Your task to perform on an android device: change text size in settings app Image 0: 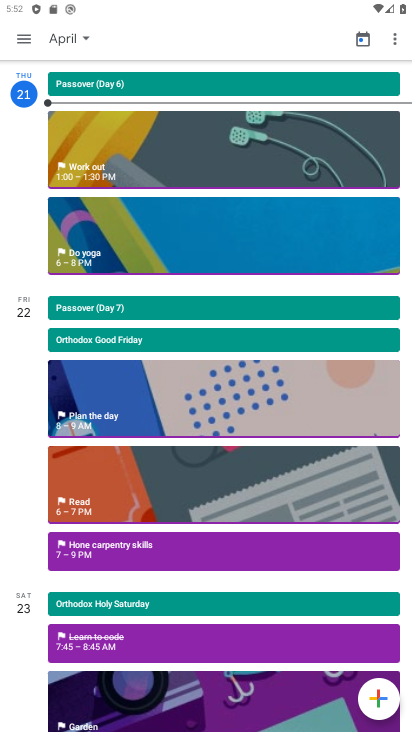
Step 0: press home button
Your task to perform on an android device: change text size in settings app Image 1: 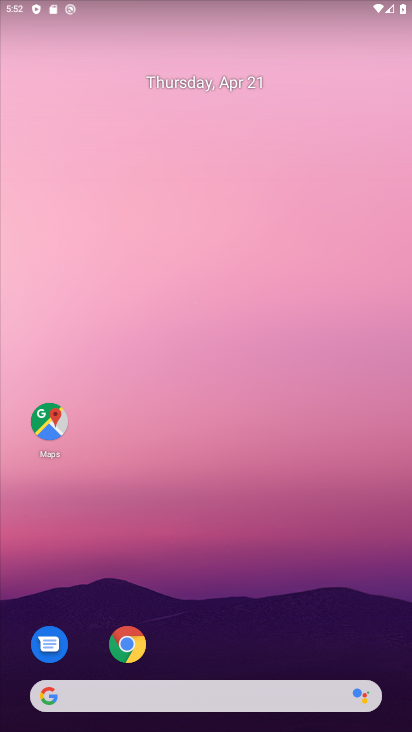
Step 1: drag from (217, 532) to (168, 2)
Your task to perform on an android device: change text size in settings app Image 2: 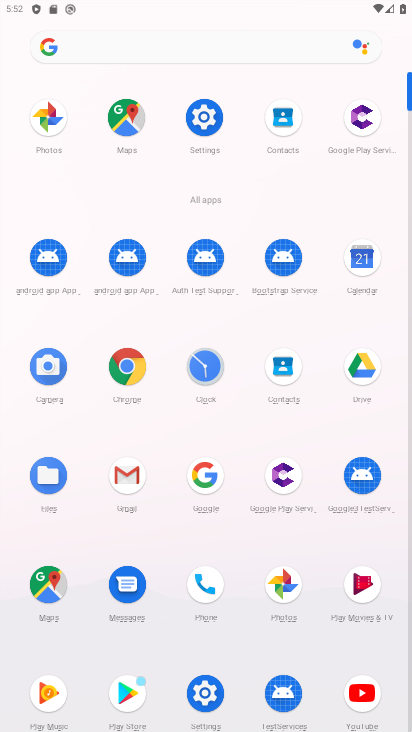
Step 2: click (206, 114)
Your task to perform on an android device: change text size in settings app Image 3: 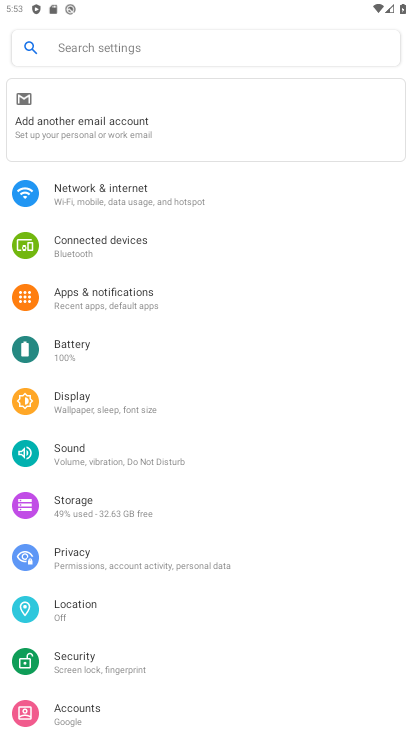
Step 3: click (114, 399)
Your task to perform on an android device: change text size in settings app Image 4: 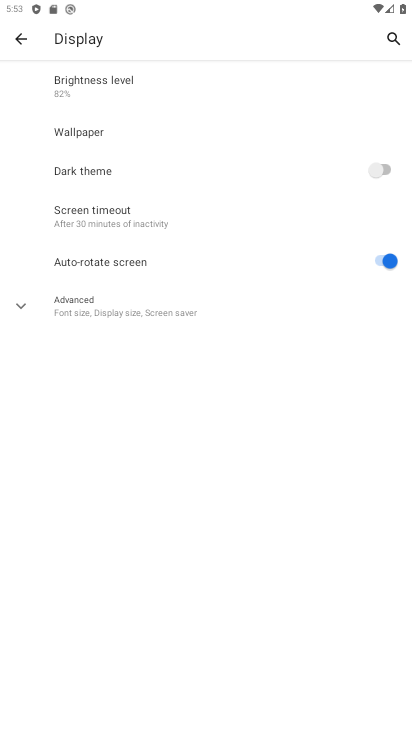
Step 4: click (130, 314)
Your task to perform on an android device: change text size in settings app Image 5: 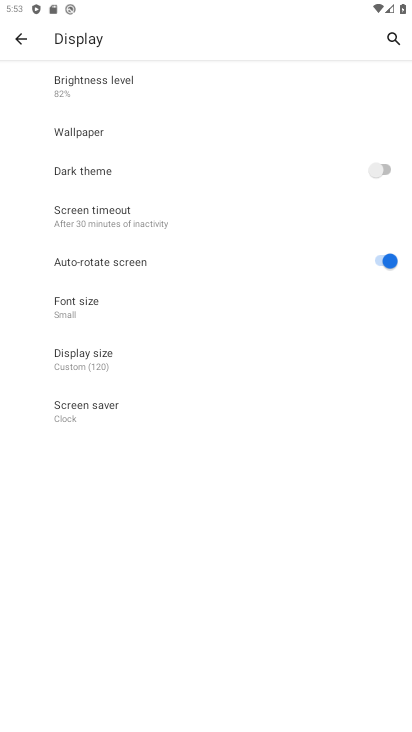
Step 5: click (117, 291)
Your task to perform on an android device: change text size in settings app Image 6: 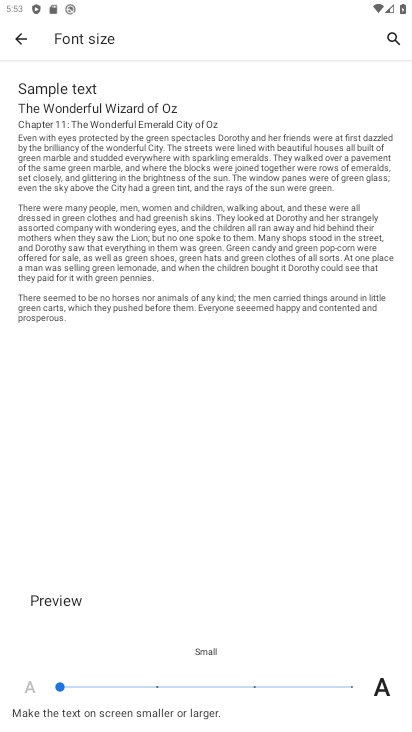
Step 6: click (95, 685)
Your task to perform on an android device: change text size in settings app Image 7: 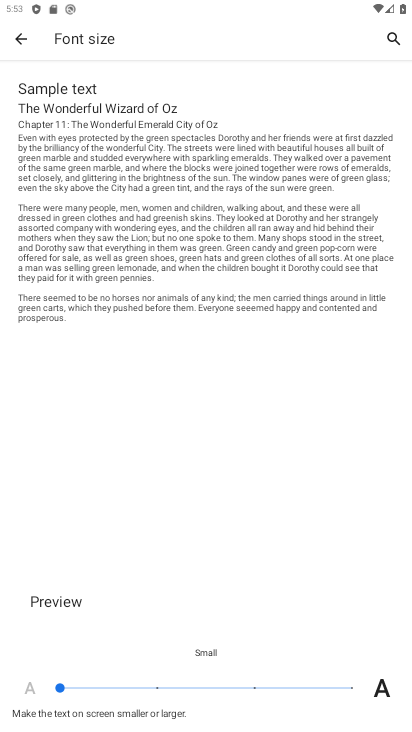
Step 7: task complete